Your task to perform on an android device: Open network settings Image 0: 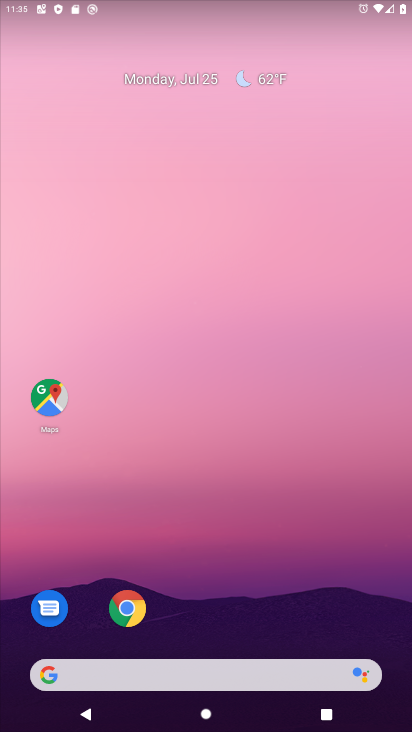
Step 0: drag from (227, 651) to (236, 13)
Your task to perform on an android device: Open network settings Image 1: 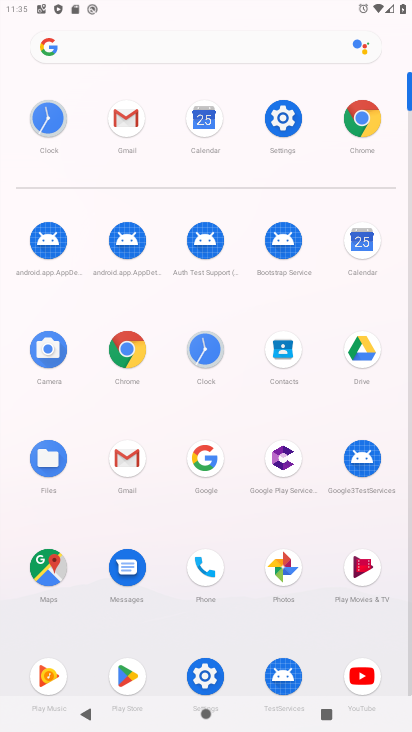
Step 1: click (199, 672)
Your task to perform on an android device: Open network settings Image 2: 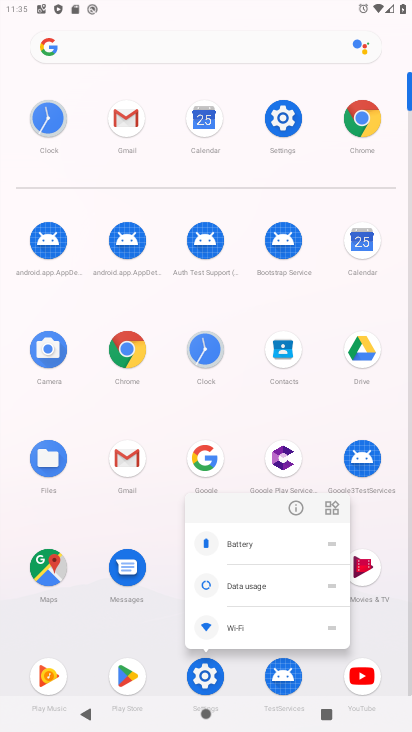
Step 2: click (208, 673)
Your task to perform on an android device: Open network settings Image 3: 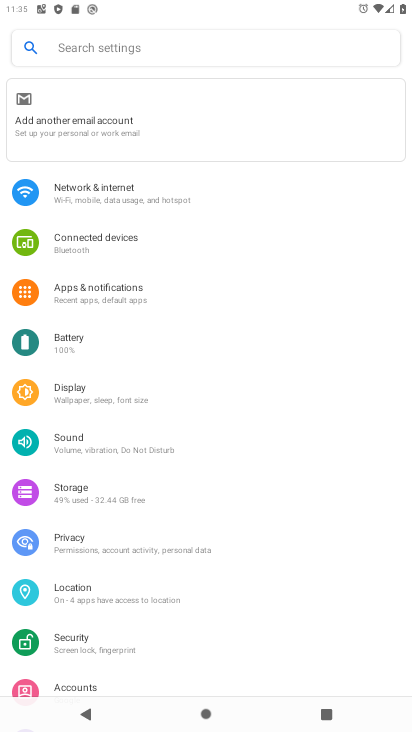
Step 3: click (148, 195)
Your task to perform on an android device: Open network settings Image 4: 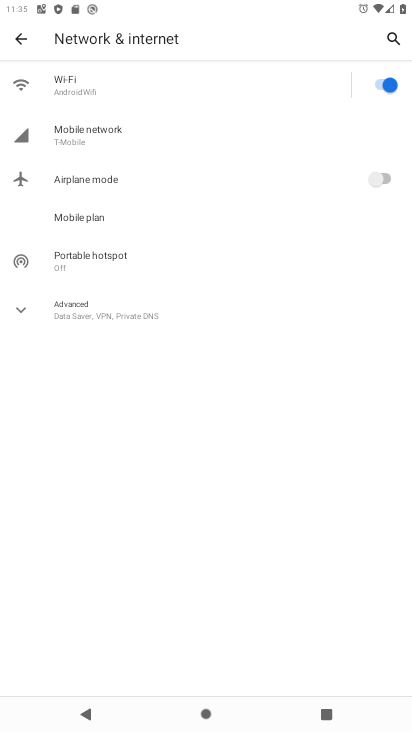
Step 4: task complete